Your task to perform on an android device: Show me recent news Image 0: 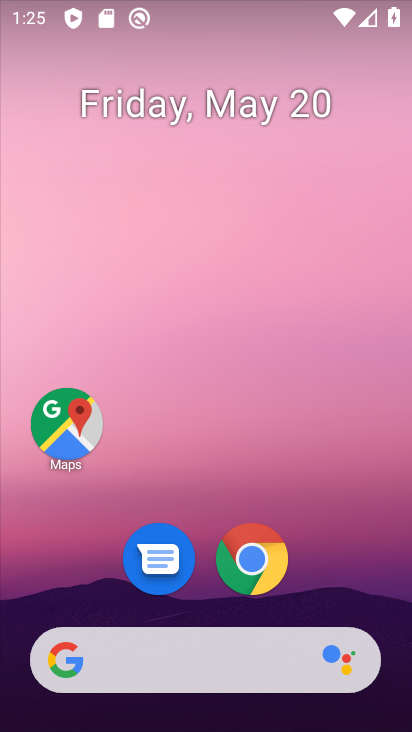
Step 0: click (167, 658)
Your task to perform on an android device: Show me recent news Image 1: 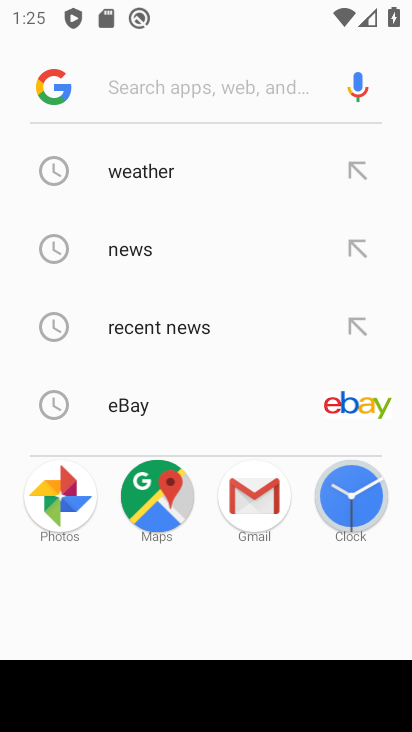
Step 1: type "recent news"
Your task to perform on an android device: Show me recent news Image 2: 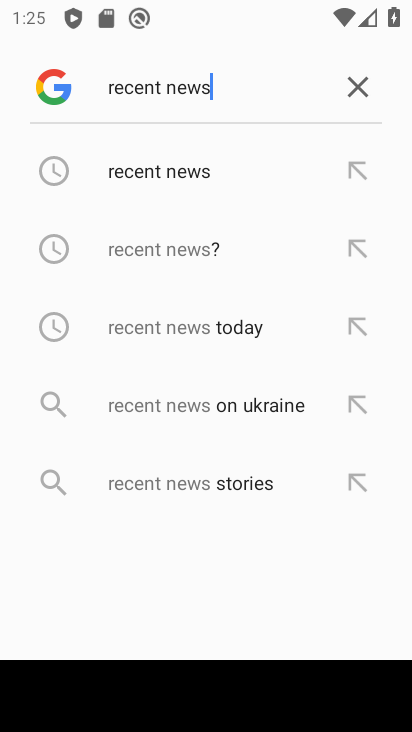
Step 2: click (150, 159)
Your task to perform on an android device: Show me recent news Image 3: 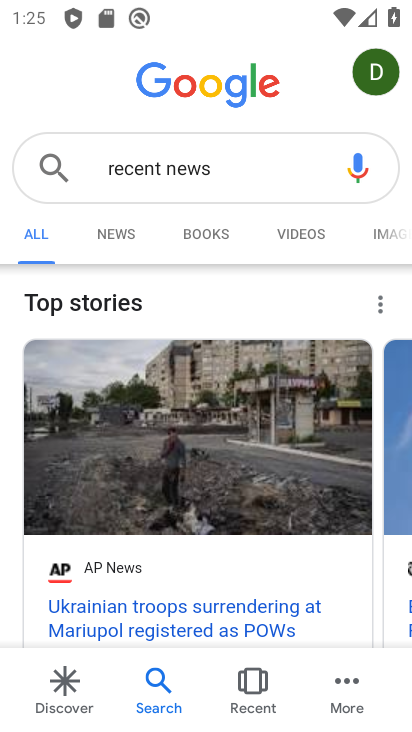
Step 3: click (122, 242)
Your task to perform on an android device: Show me recent news Image 4: 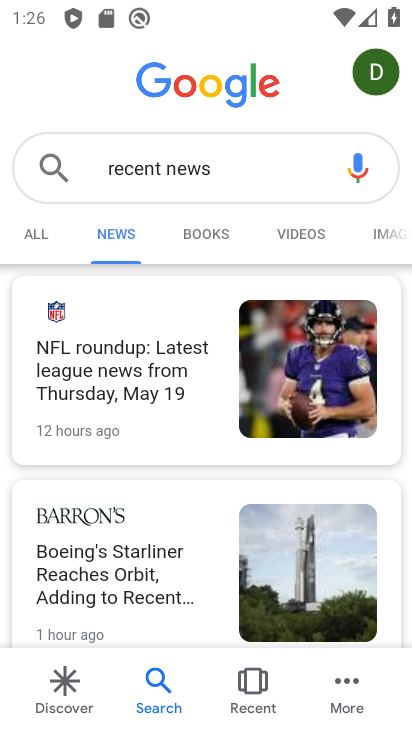
Step 4: task complete